Your task to perform on an android device: When is my next meeting? Image 0: 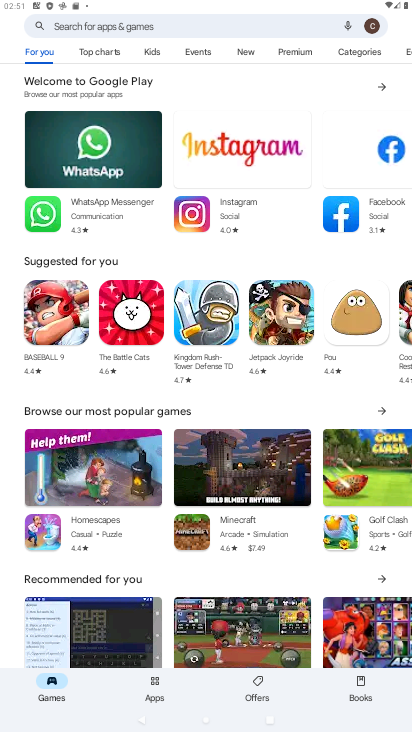
Step 0: press home button
Your task to perform on an android device: When is my next meeting? Image 1: 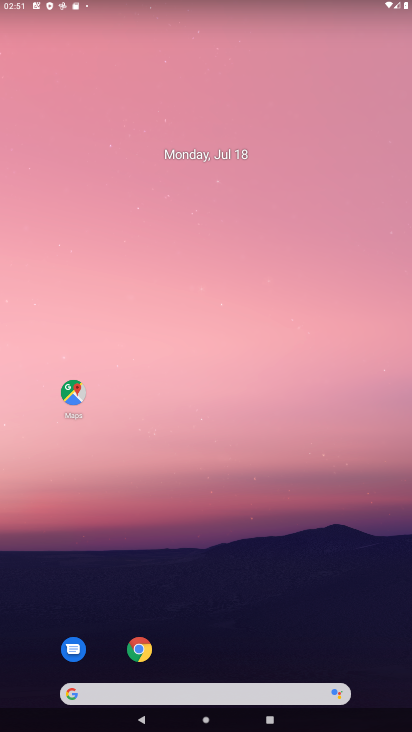
Step 1: drag from (244, 723) to (123, 194)
Your task to perform on an android device: When is my next meeting? Image 2: 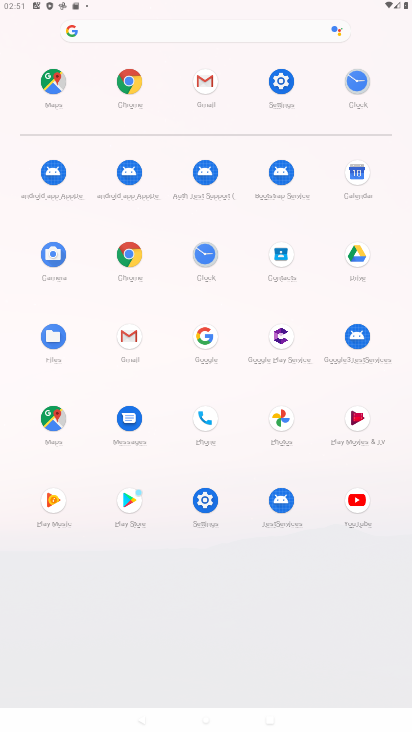
Step 2: click (362, 174)
Your task to perform on an android device: When is my next meeting? Image 3: 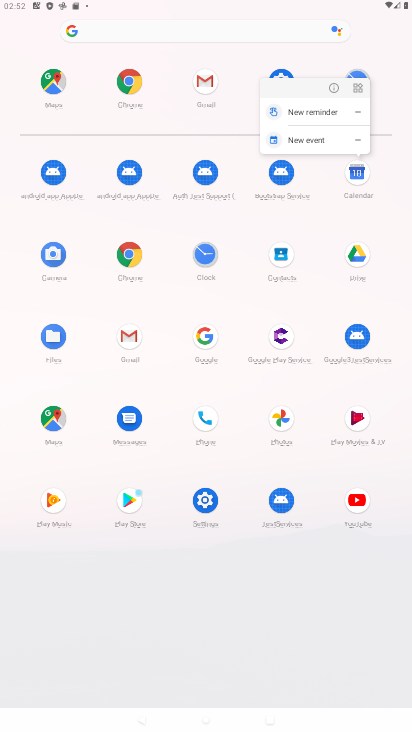
Step 3: click (373, 177)
Your task to perform on an android device: When is my next meeting? Image 4: 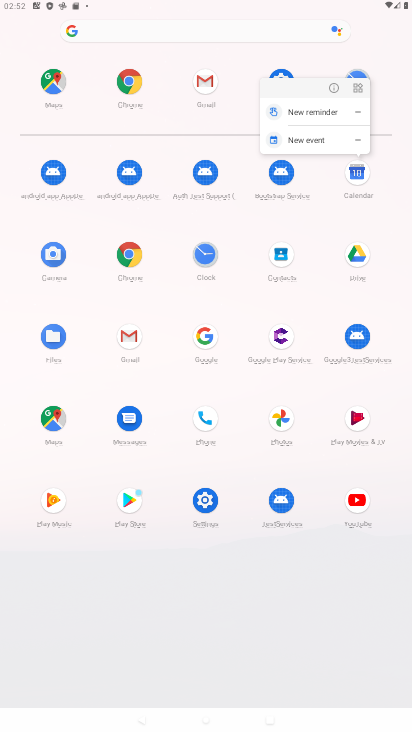
Step 4: click (373, 177)
Your task to perform on an android device: When is my next meeting? Image 5: 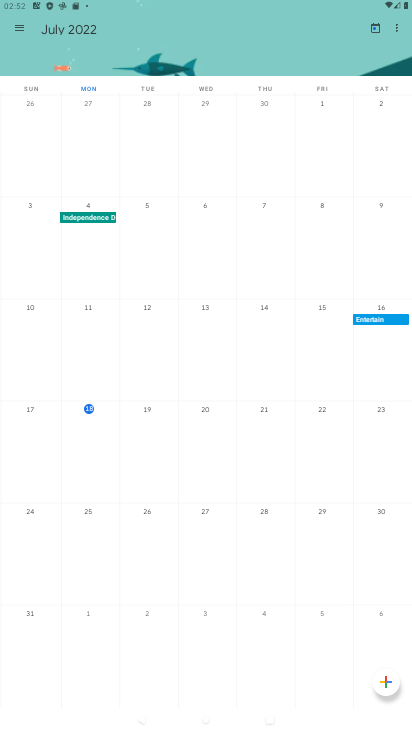
Step 5: click (376, 29)
Your task to perform on an android device: When is my next meeting? Image 6: 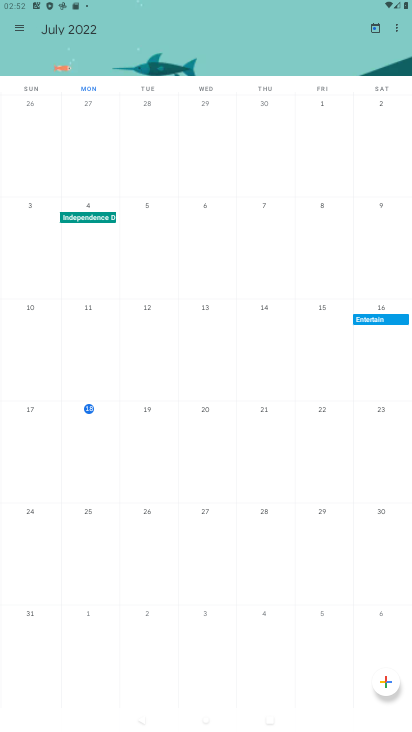
Step 6: task complete